Your task to perform on an android device: all mails in gmail Image 0: 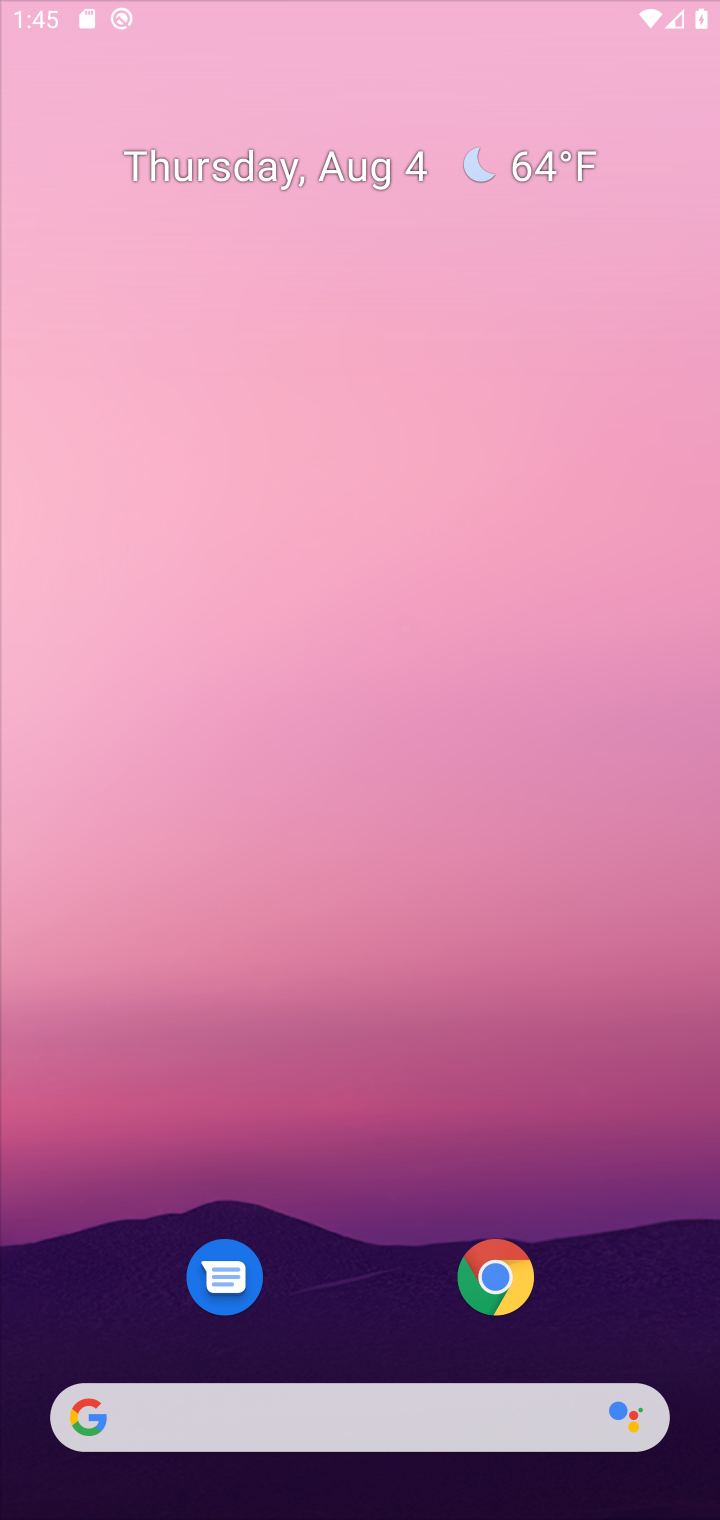
Step 0: press home button
Your task to perform on an android device: all mails in gmail Image 1: 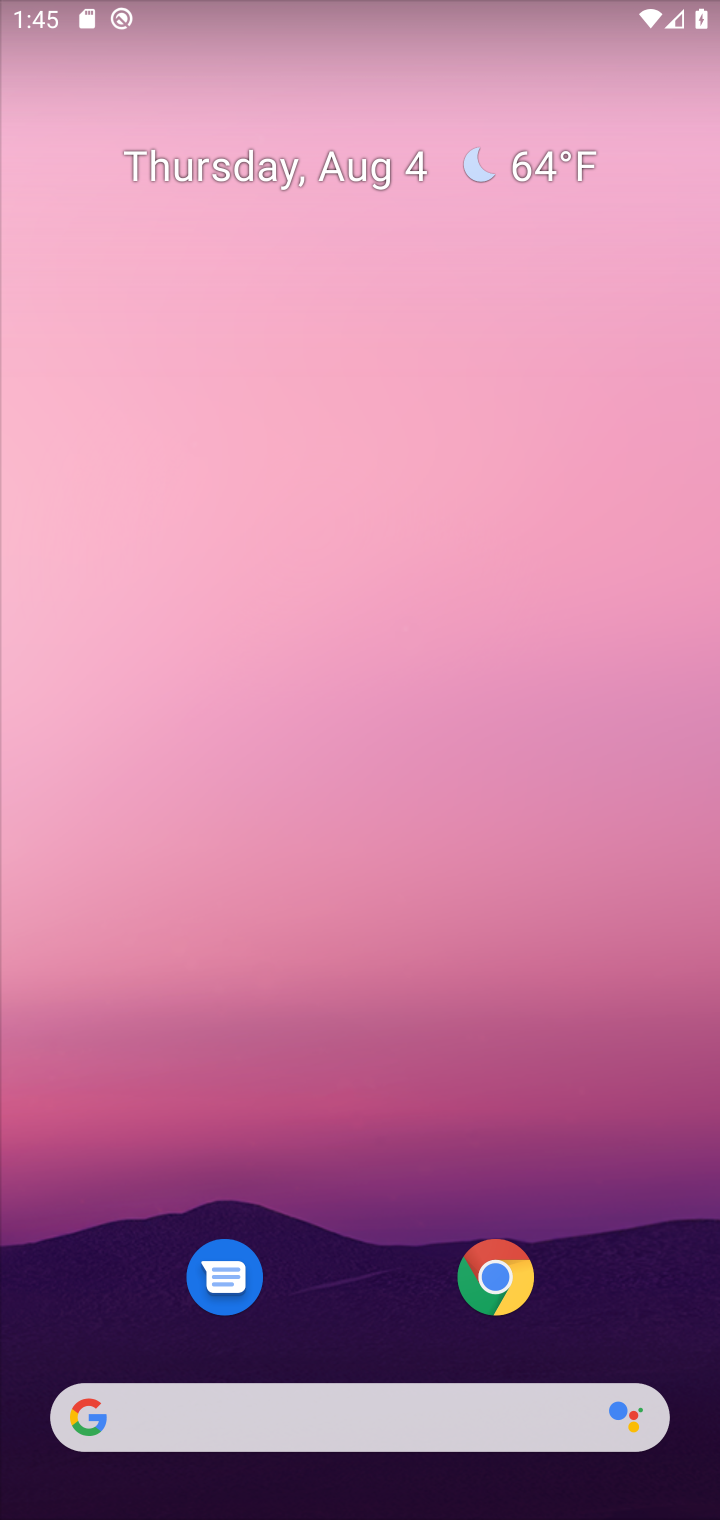
Step 1: drag from (346, 1142) to (359, 639)
Your task to perform on an android device: all mails in gmail Image 2: 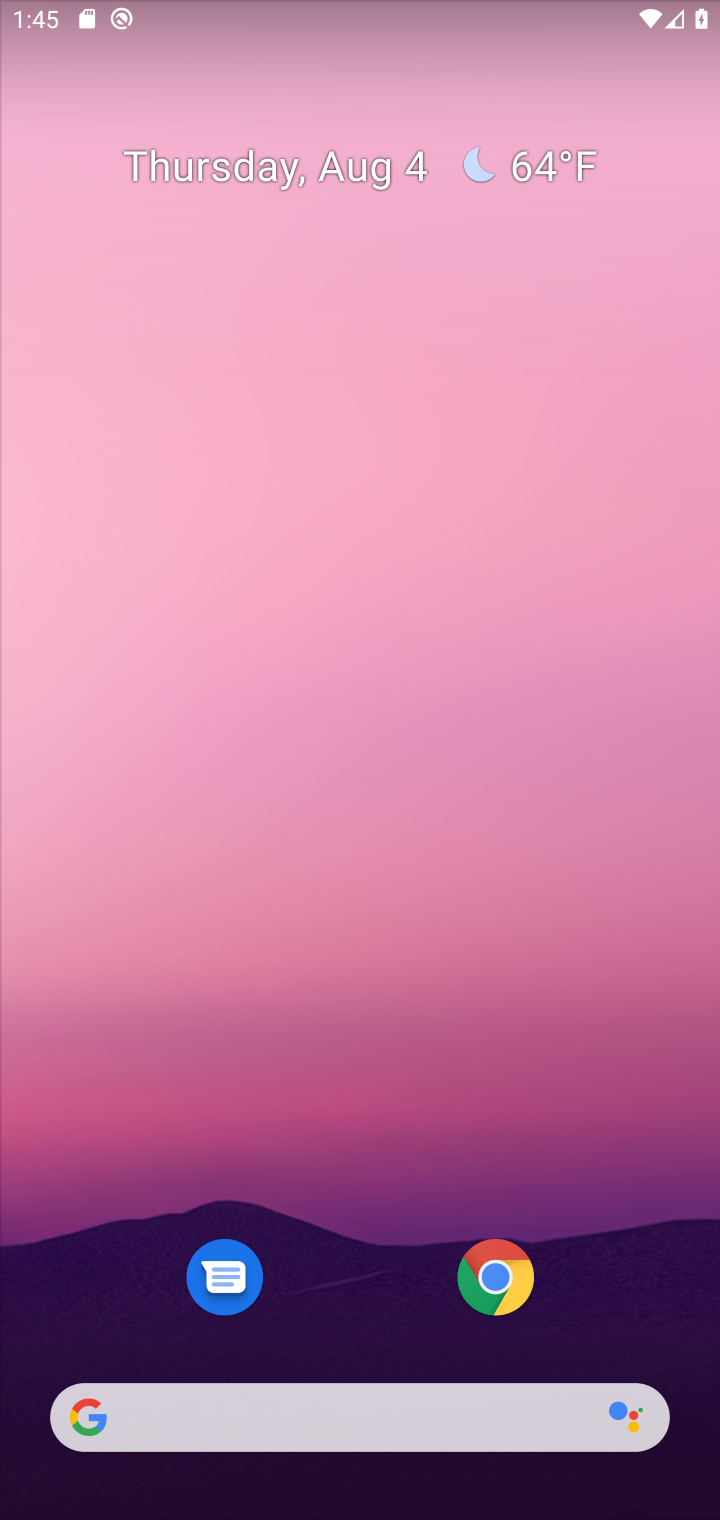
Step 2: drag from (293, 1015) to (262, 436)
Your task to perform on an android device: all mails in gmail Image 3: 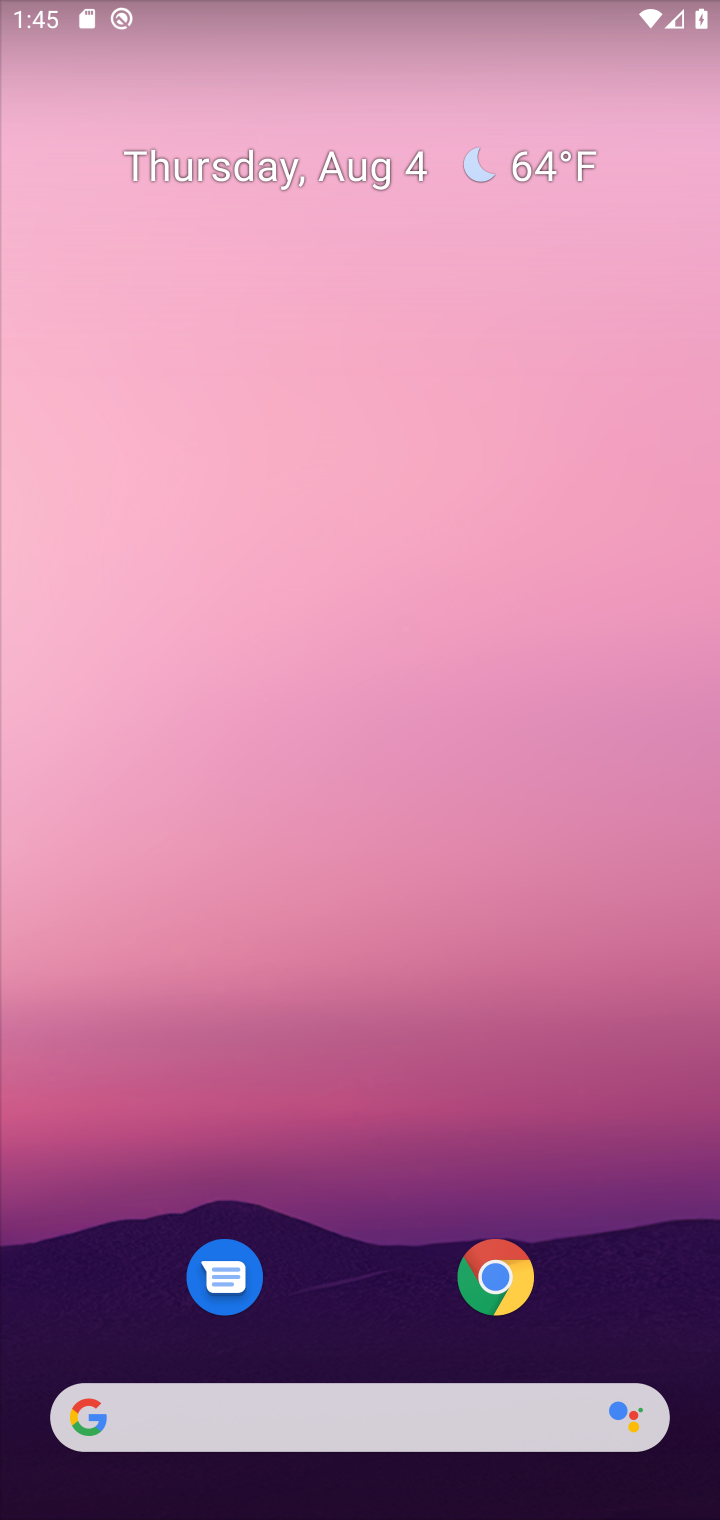
Step 3: drag from (343, 1288) to (313, 348)
Your task to perform on an android device: all mails in gmail Image 4: 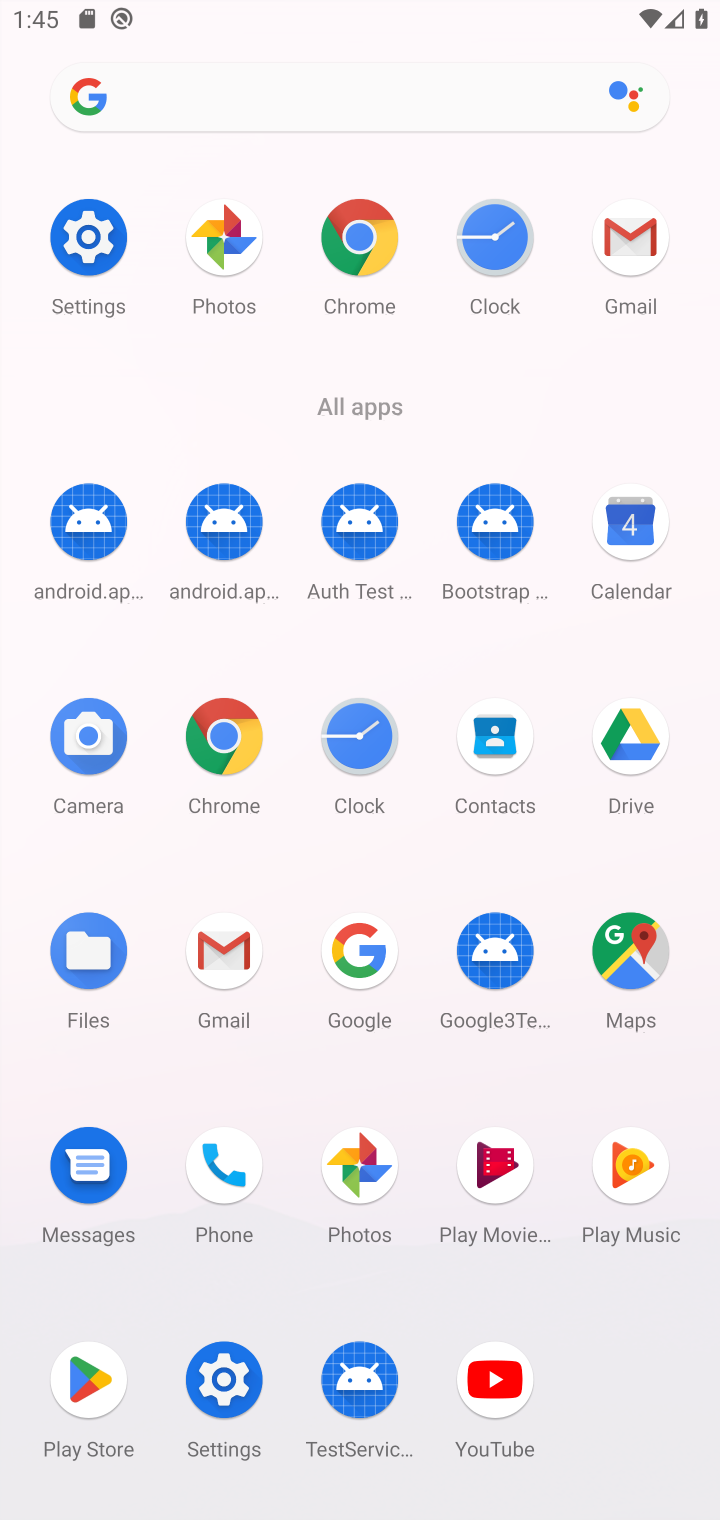
Step 4: click (241, 961)
Your task to perform on an android device: all mails in gmail Image 5: 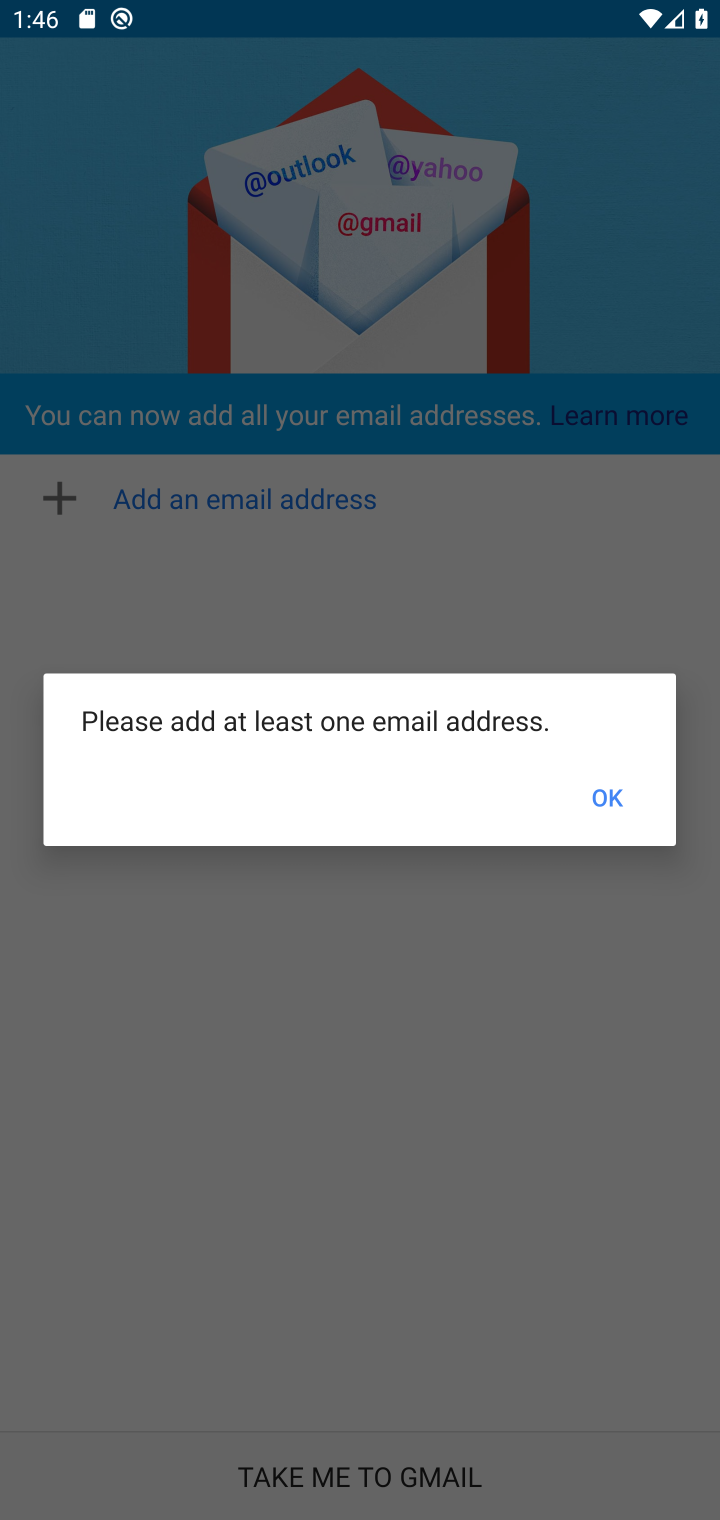
Step 5: task complete